Your task to perform on an android device: remove spam from my inbox in the gmail app Image 0: 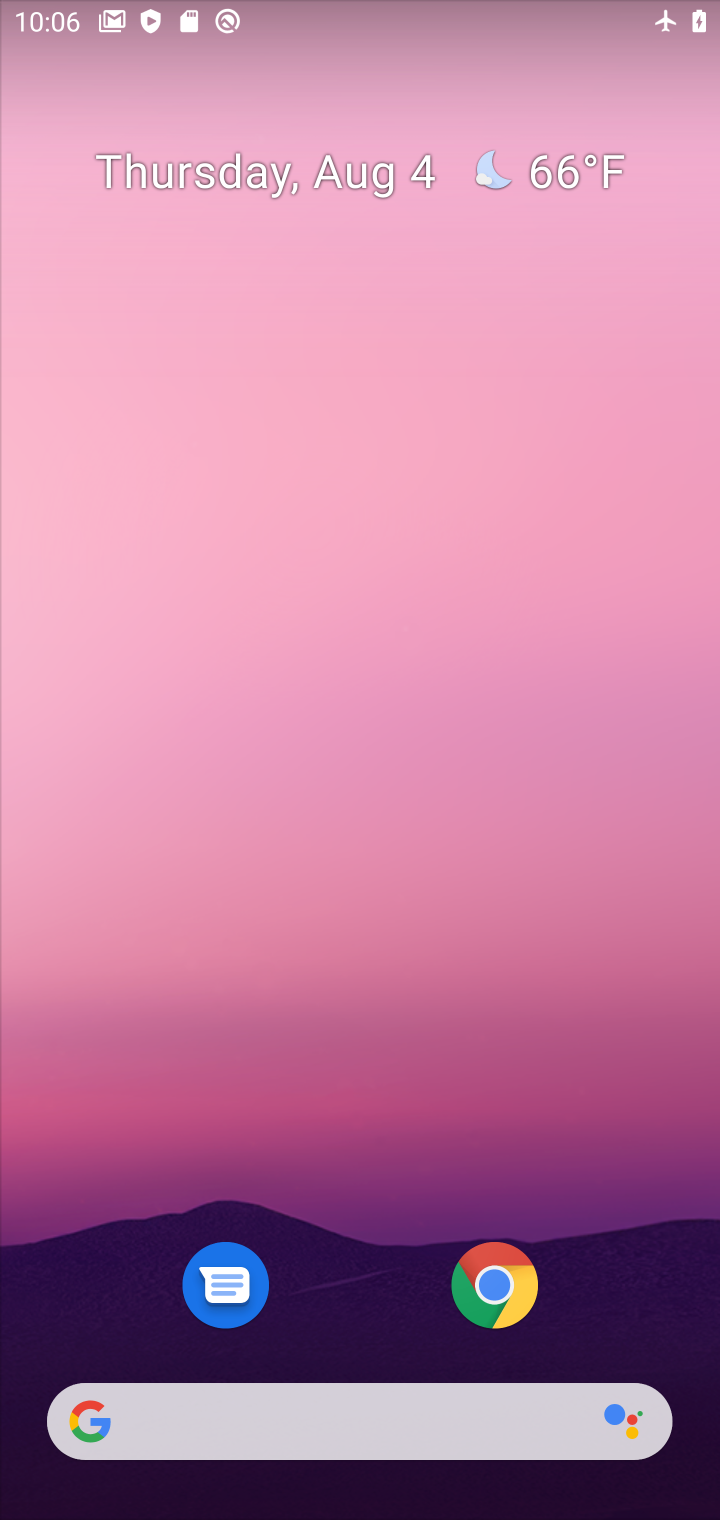
Step 0: press home button
Your task to perform on an android device: remove spam from my inbox in the gmail app Image 1: 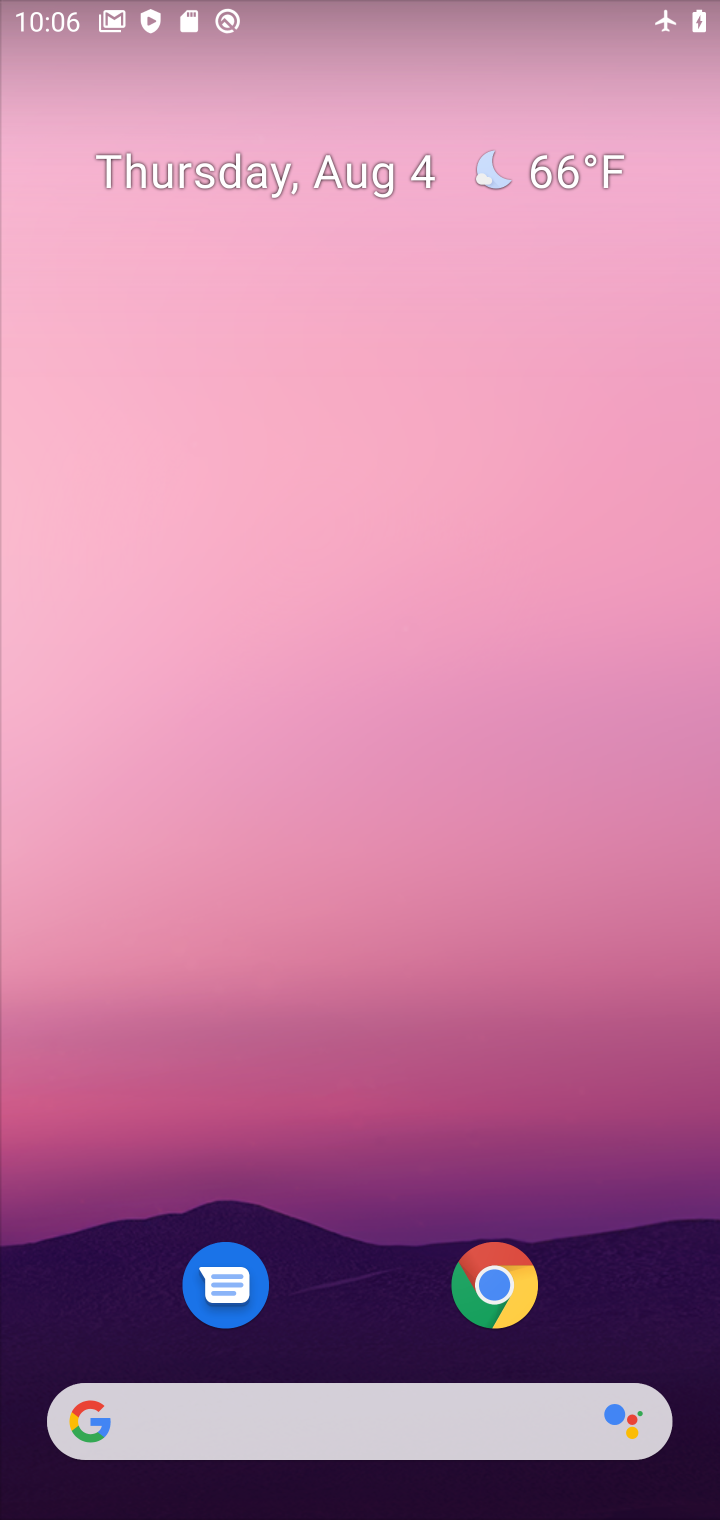
Step 1: drag from (319, 1280) to (332, 263)
Your task to perform on an android device: remove spam from my inbox in the gmail app Image 2: 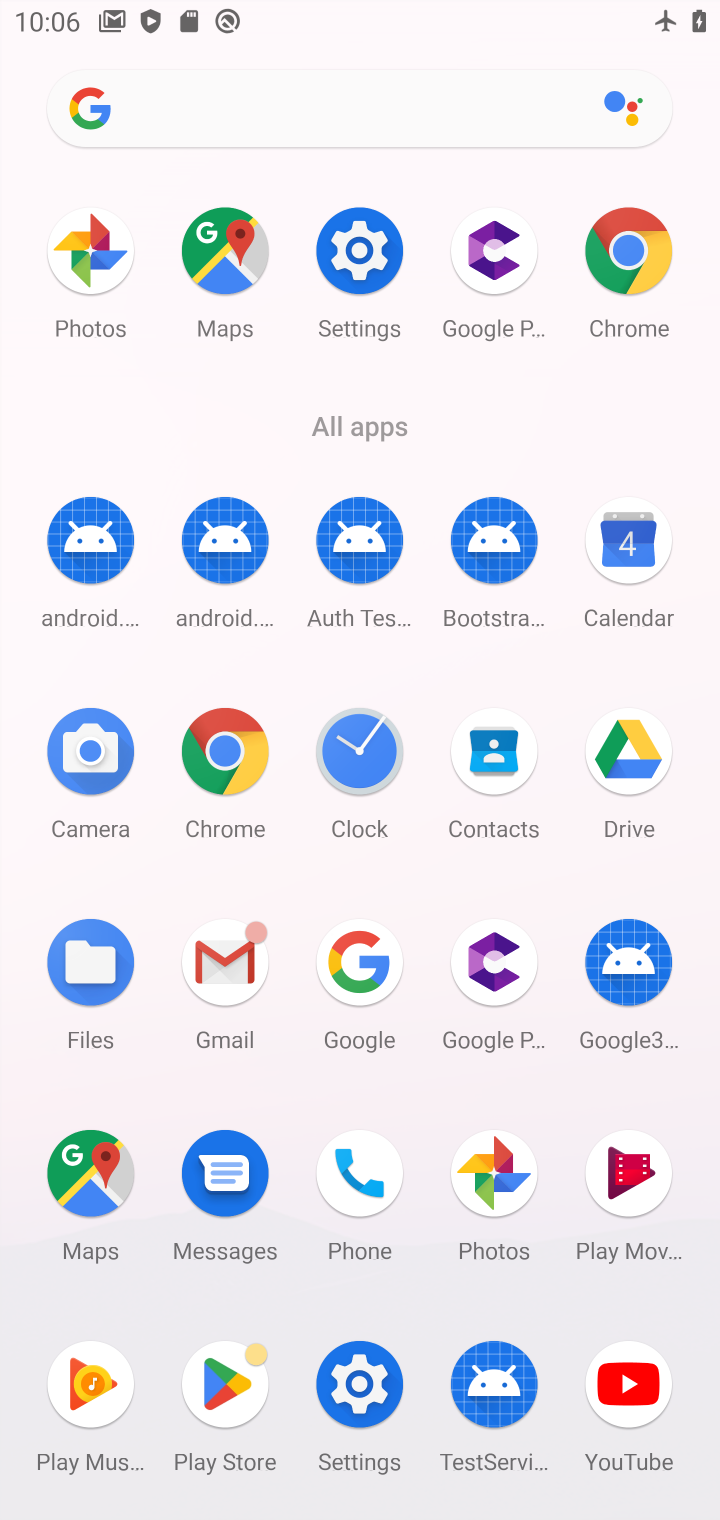
Step 2: click (85, 1171)
Your task to perform on an android device: remove spam from my inbox in the gmail app Image 3: 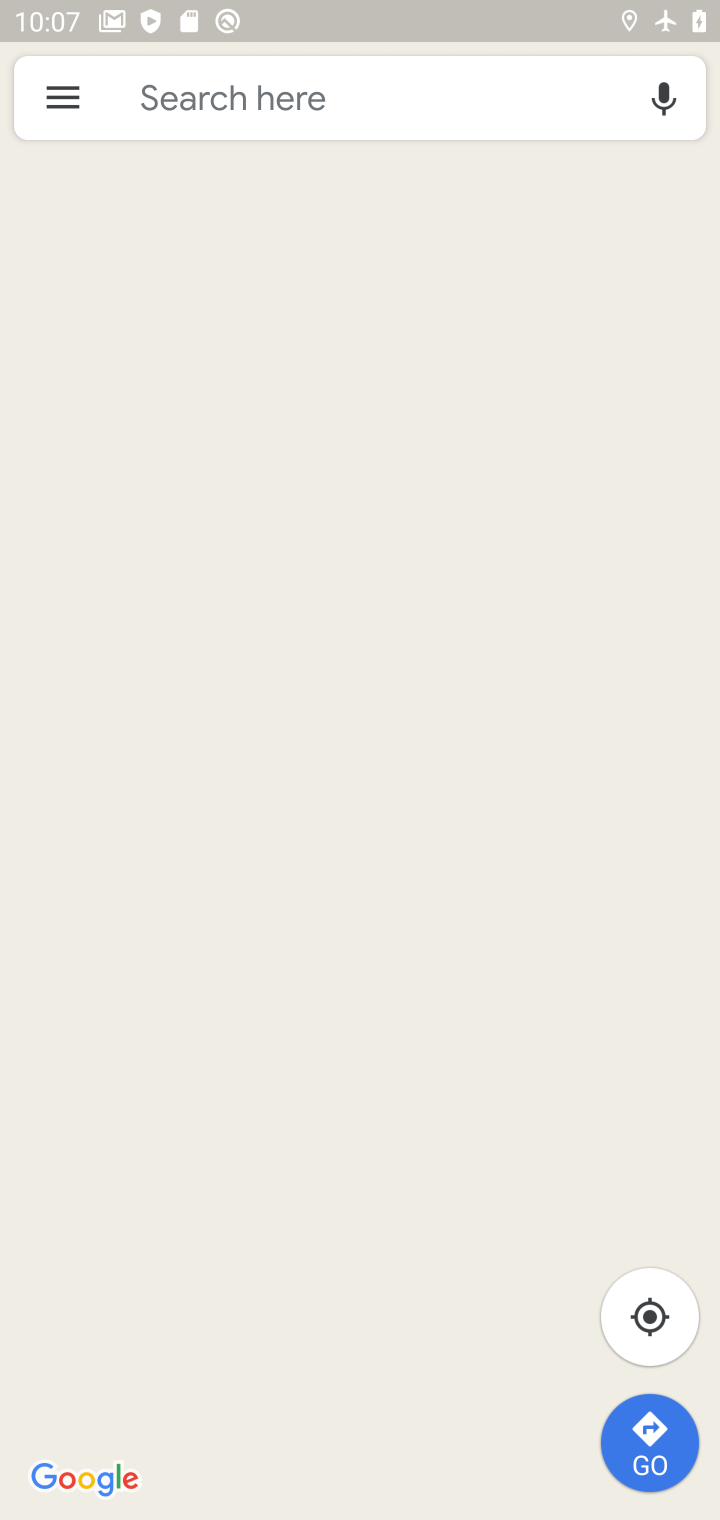
Step 3: press home button
Your task to perform on an android device: remove spam from my inbox in the gmail app Image 4: 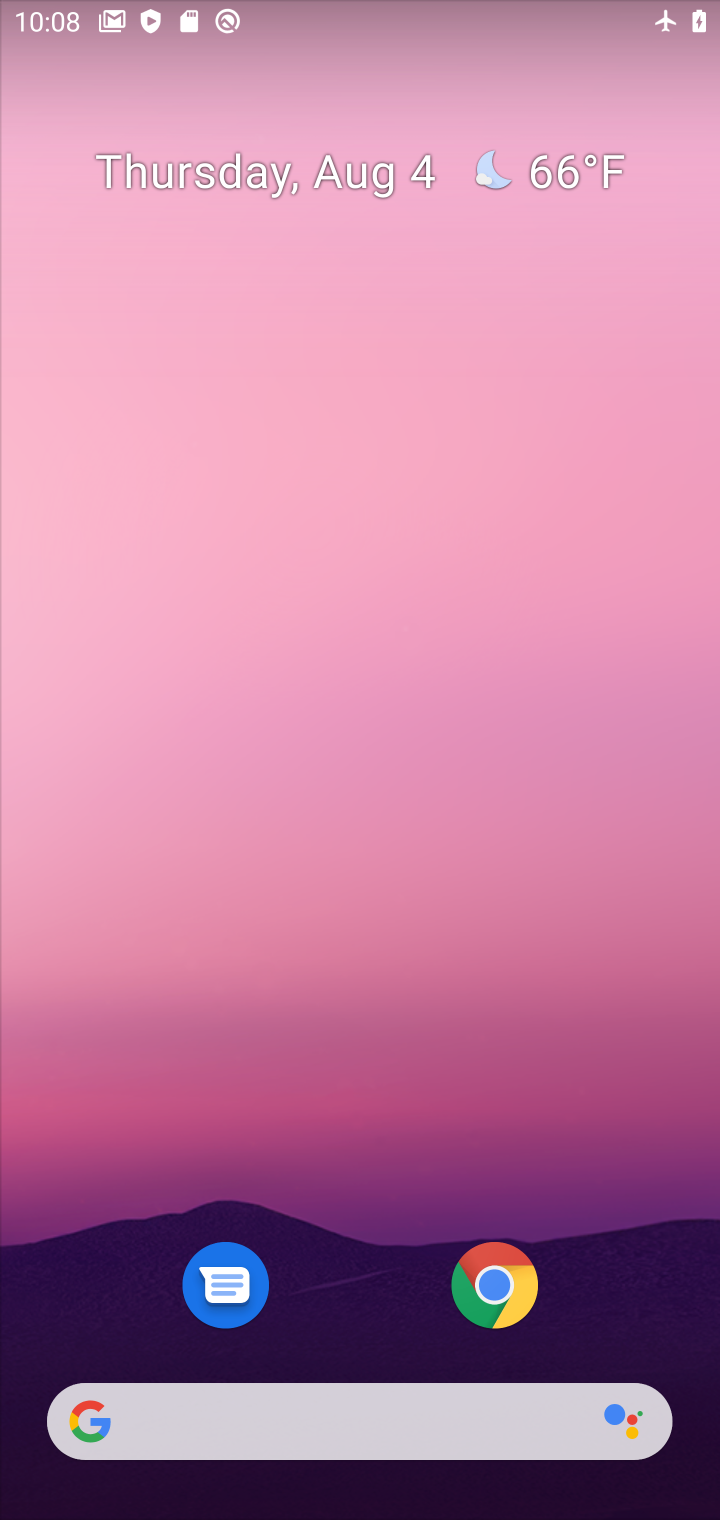
Step 4: drag from (390, 1301) to (370, 313)
Your task to perform on an android device: remove spam from my inbox in the gmail app Image 5: 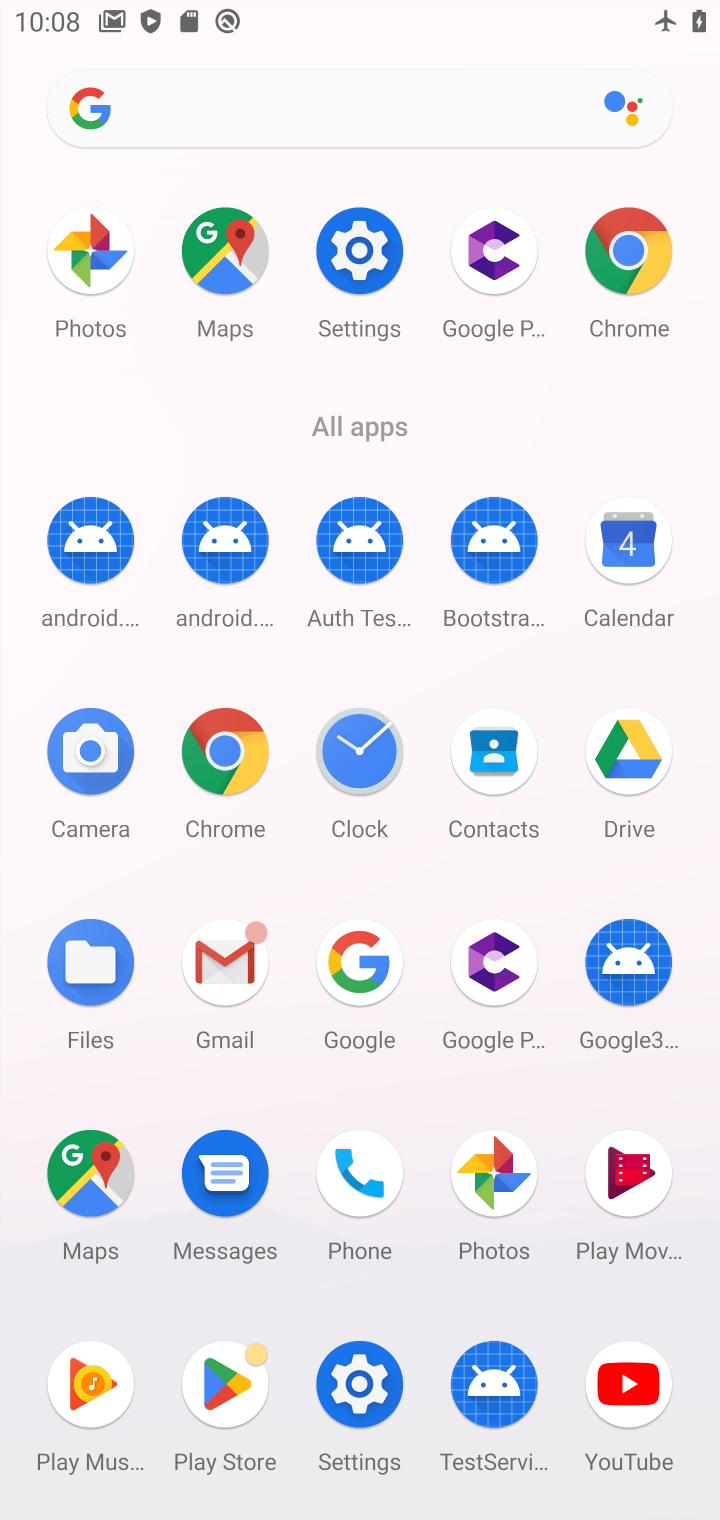
Step 5: click (225, 927)
Your task to perform on an android device: remove spam from my inbox in the gmail app Image 6: 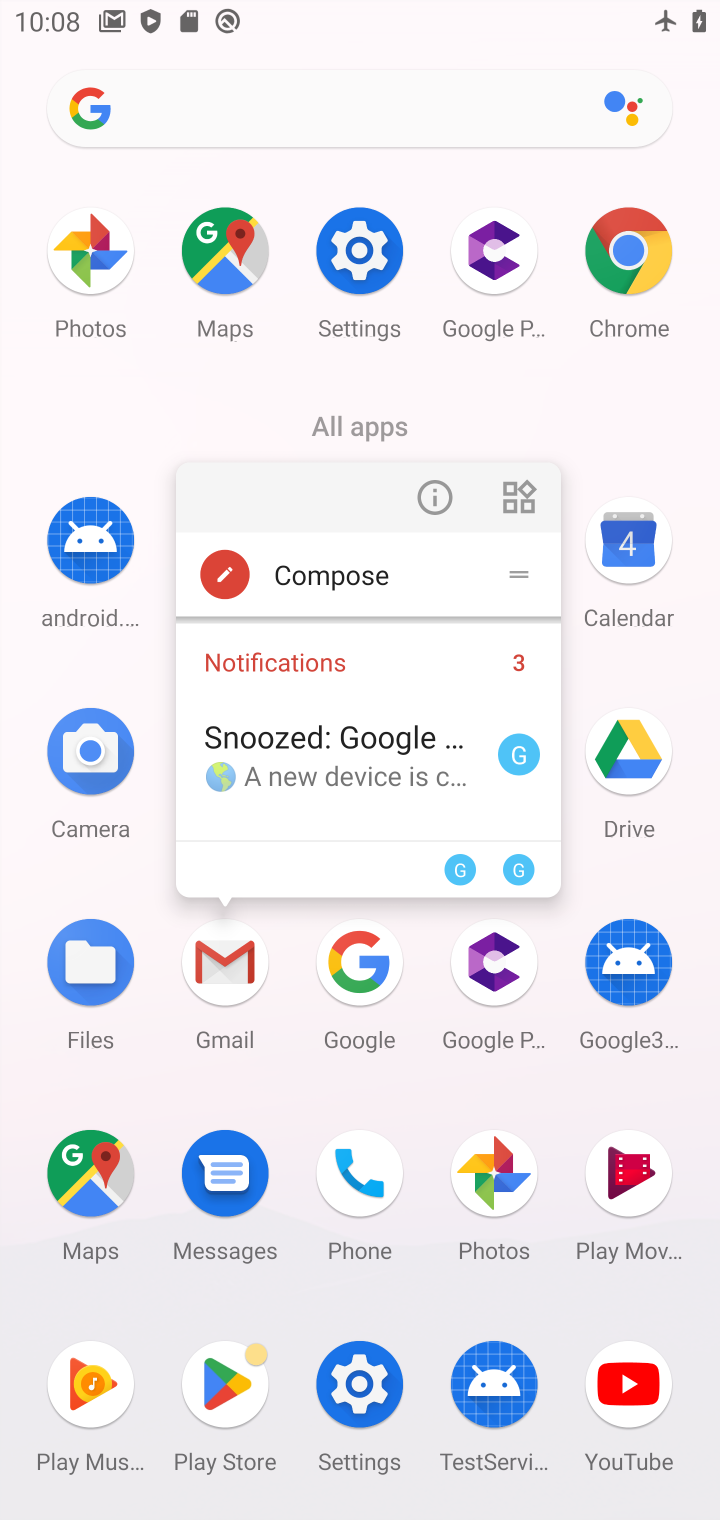
Step 6: click (225, 958)
Your task to perform on an android device: remove spam from my inbox in the gmail app Image 7: 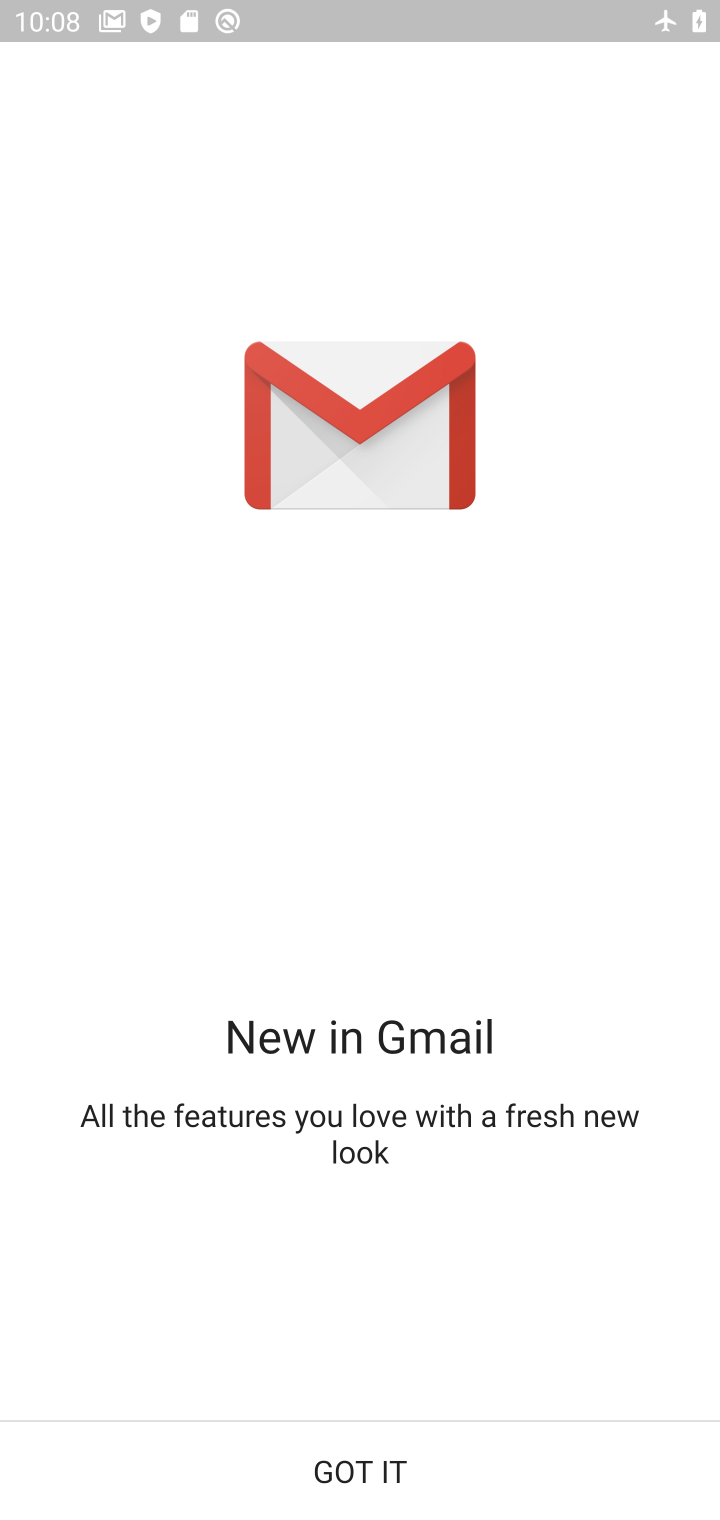
Step 7: click (342, 1455)
Your task to perform on an android device: remove spam from my inbox in the gmail app Image 8: 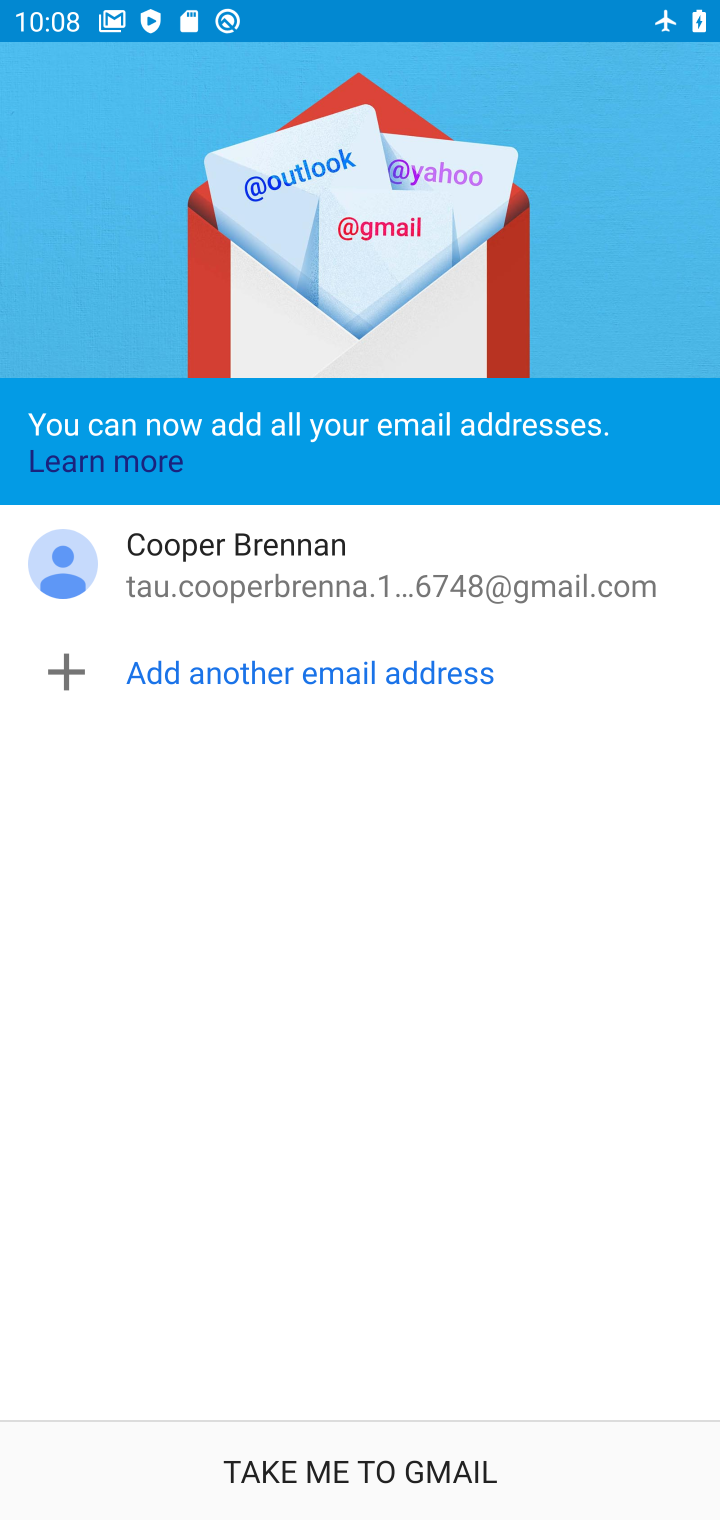
Step 8: click (342, 1455)
Your task to perform on an android device: remove spam from my inbox in the gmail app Image 9: 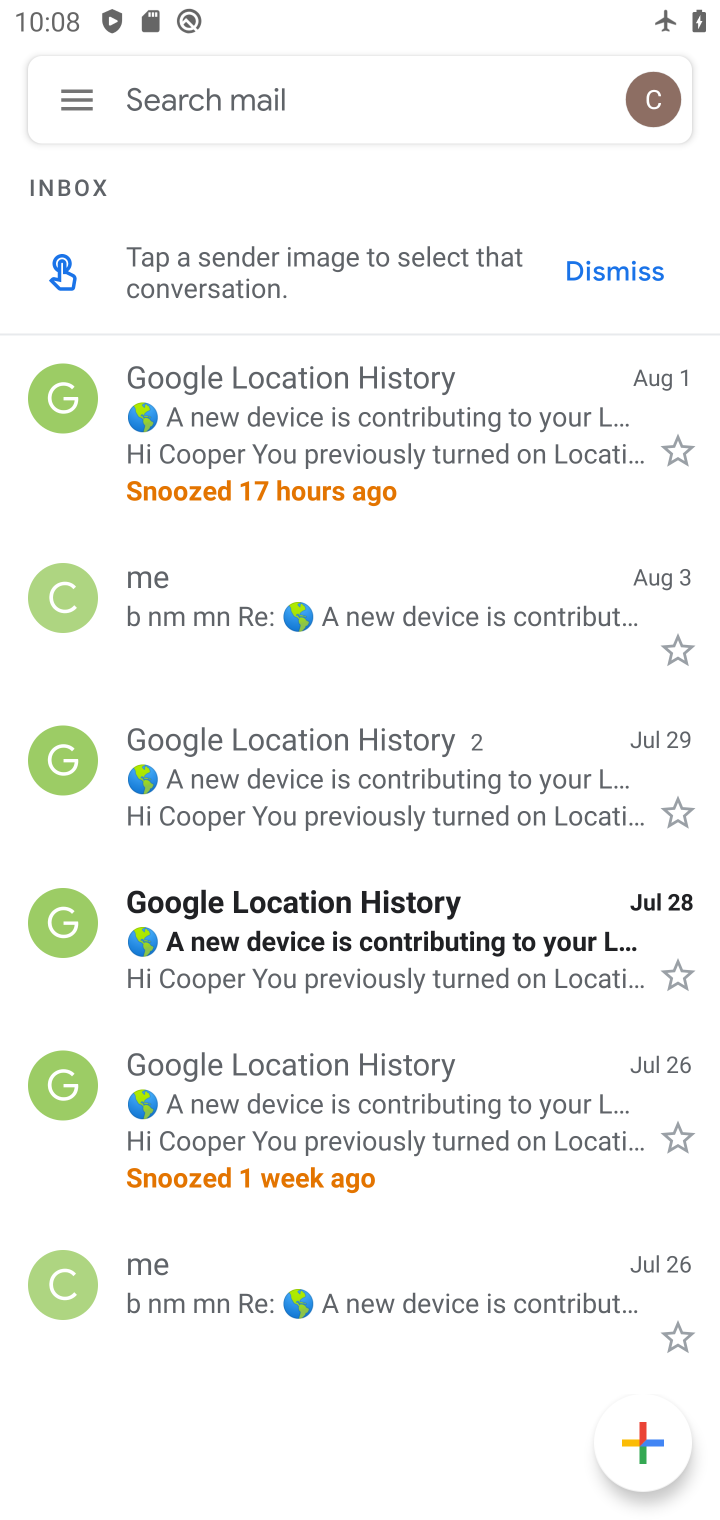
Step 9: click (91, 84)
Your task to perform on an android device: remove spam from my inbox in the gmail app Image 10: 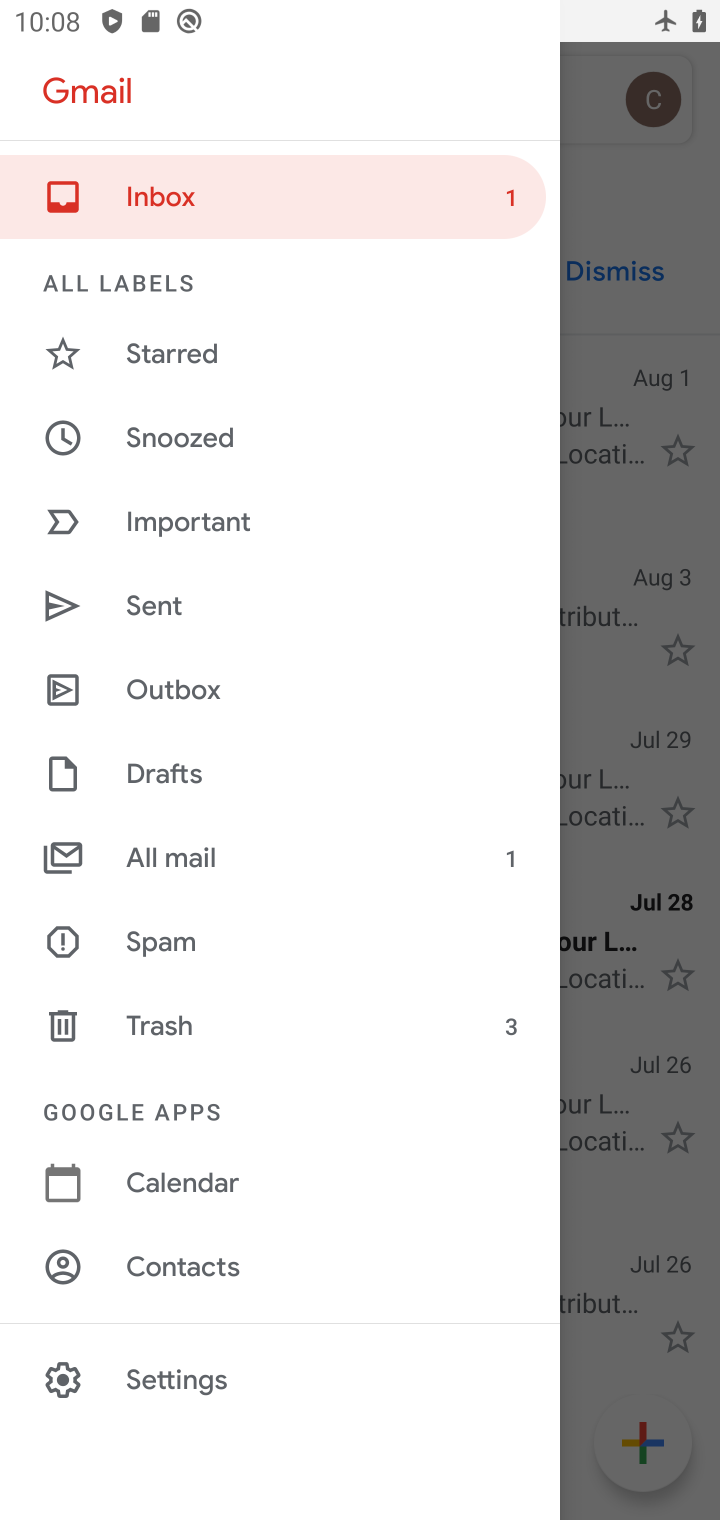
Step 10: click (172, 925)
Your task to perform on an android device: remove spam from my inbox in the gmail app Image 11: 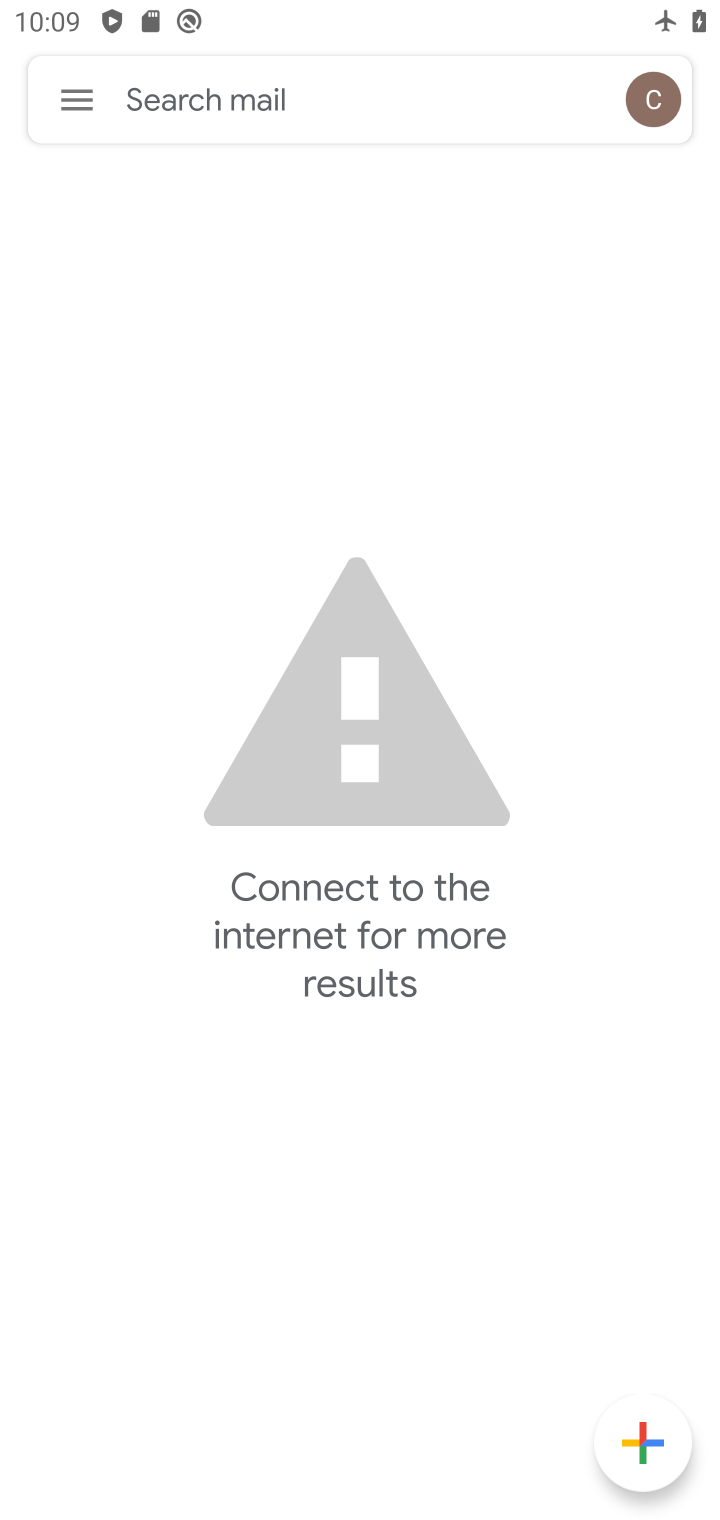
Step 11: task complete